Your task to perform on an android device: Do I have any events tomorrow? Image 0: 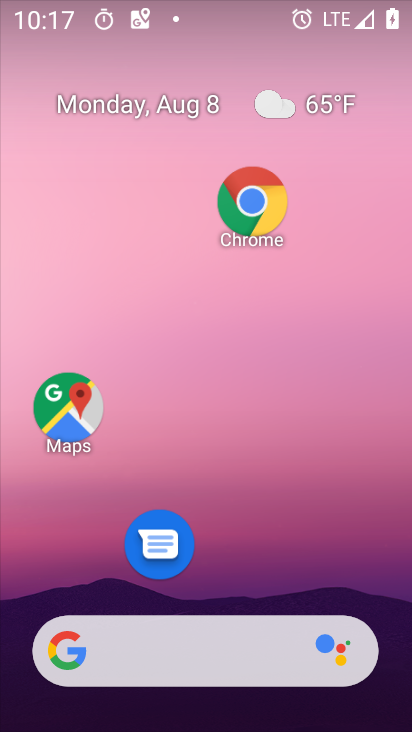
Step 0: press home button
Your task to perform on an android device: Do I have any events tomorrow? Image 1: 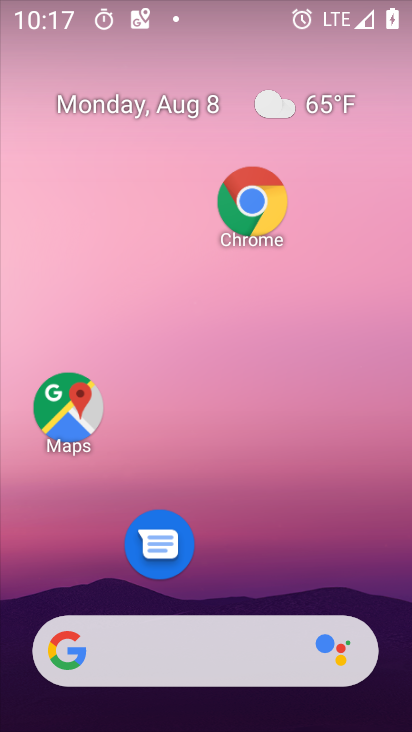
Step 1: drag from (209, 587) to (198, 108)
Your task to perform on an android device: Do I have any events tomorrow? Image 2: 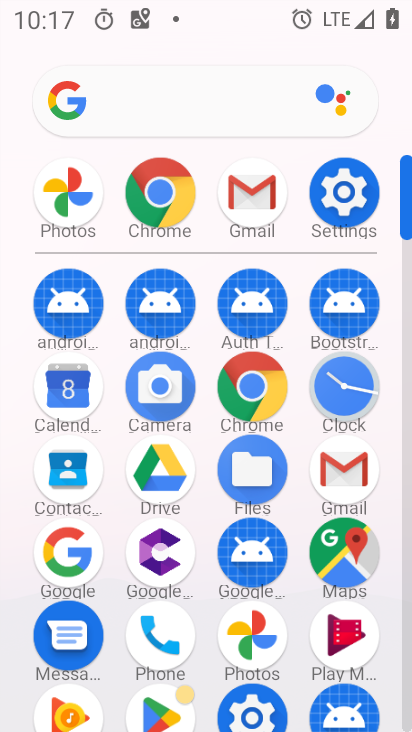
Step 2: click (67, 387)
Your task to perform on an android device: Do I have any events tomorrow? Image 3: 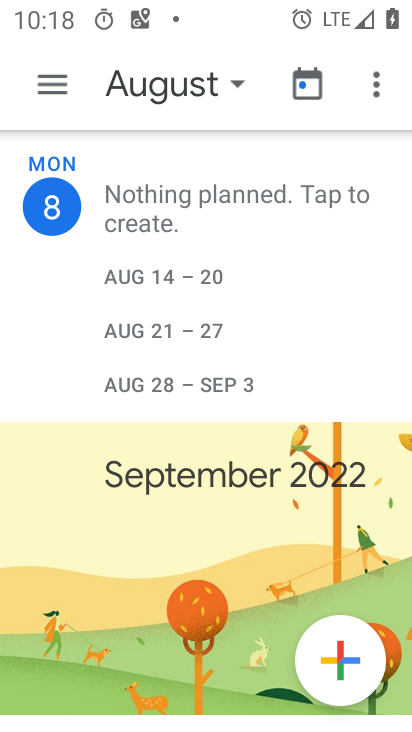
Step 3: click (40, 80)
Your task to perform on an android device: Do I have any events tomorrow? Image 4: 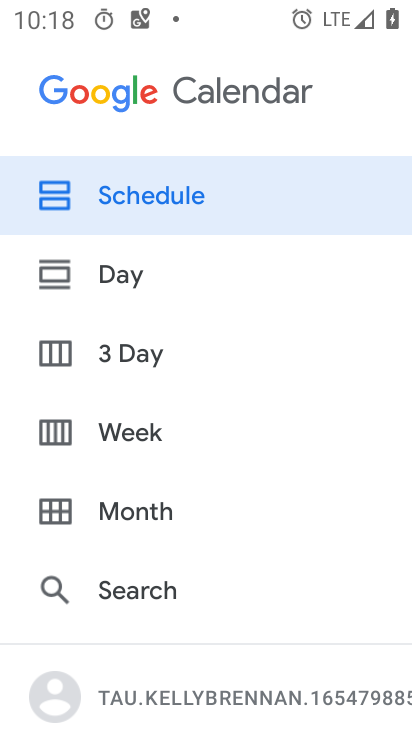
Step 4: click (83, 272)
Your task to perform on an android device: Do I have any events tomorrow? Image 5: 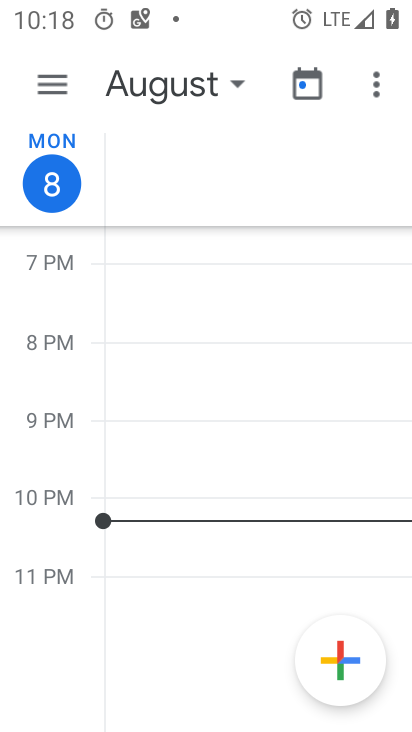
Step 5: click (222, 90)
Your task to perform on an android device: Do I have any events tomorrow? Image 6: 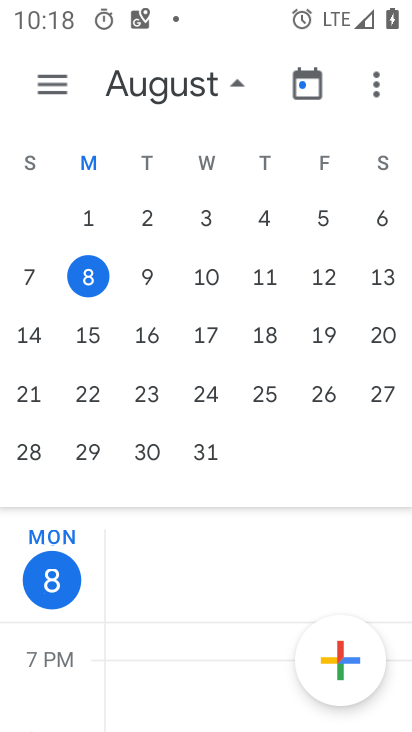
Step 6: click (145, 264)
Your task to perform on an android device: Do I have any events tomorrow? Image 7: 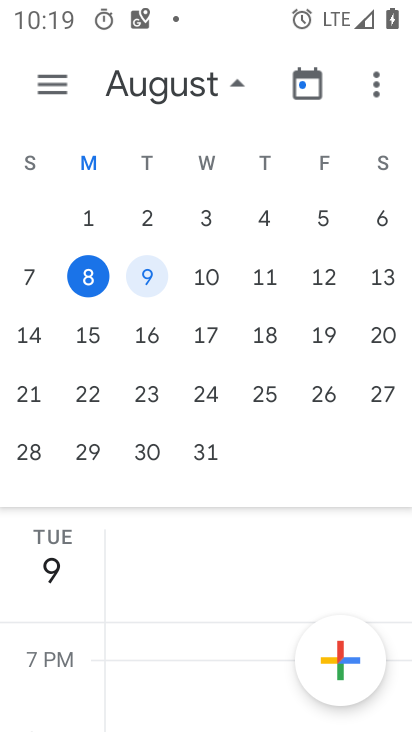
Step 7: click (234, 88)
Your task to perform on an android device: Do I have any events tomorrow? Image 8: 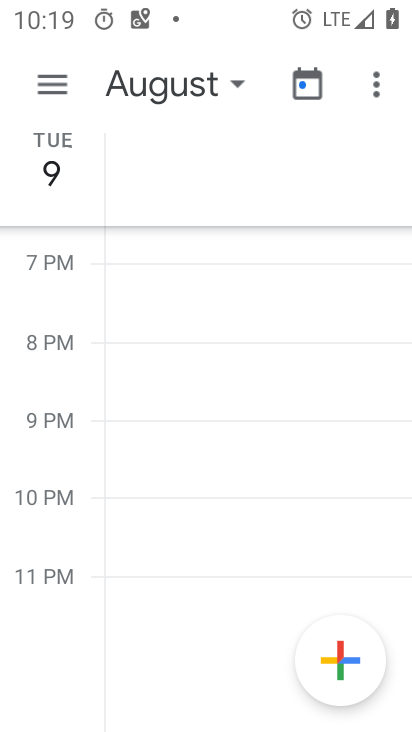
Step 8: task complete